Your task to perform on an android device: check the backup settings in the google photos Image 0: 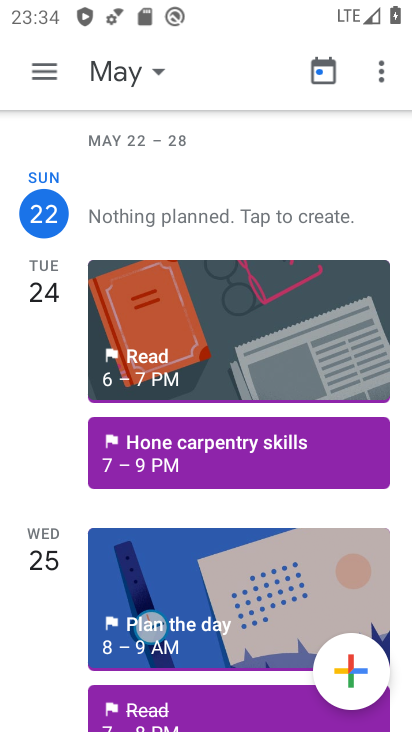
Step 0: press home button
Your task to perform on an android device: check the backup settings in the google photos Image 1: 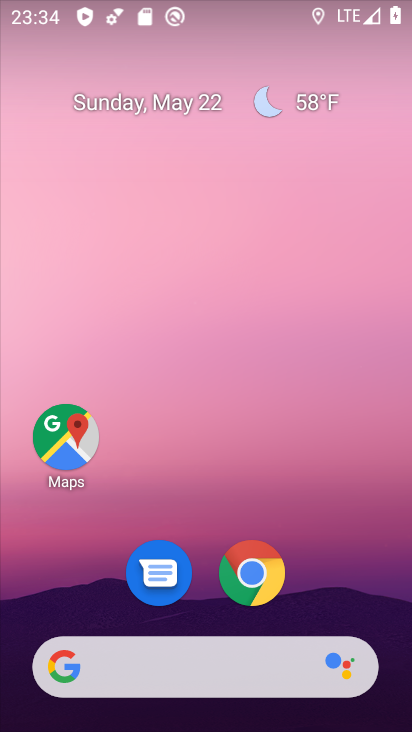
Step 1: drag from (206, 617) to (270, 8)
Your task to perform on an android device: check the backup settings in the google photos Image 2: 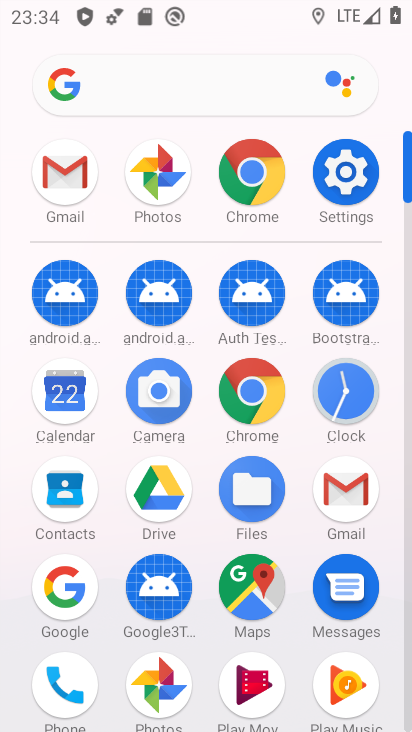
Step 2: click (160, 681)
Your task to perform on an android device: check the backup settings in the google photos Image 3: 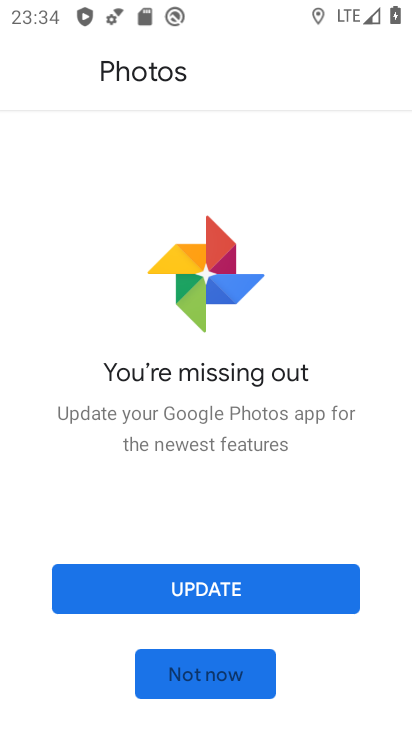
Step 3: click (203, 667)
Your task to perform on an android device: check the backup settings in the google photos Image 4: 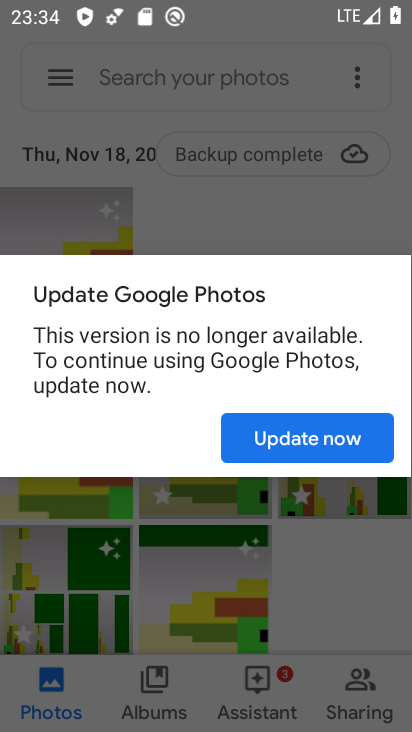
Step 4: click (338, 449)
Your task to perform on an android device: check the backup settings in the google photos Image 5: 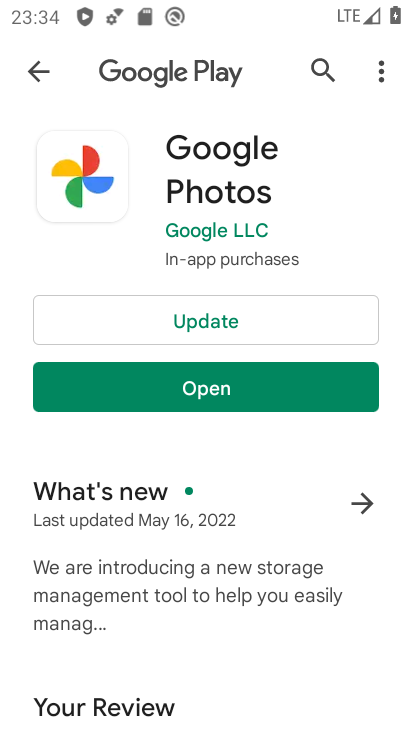
Step 5: click (218, 376)
Your task to perform on an android device: check the backup settings in the google photos Image 6: 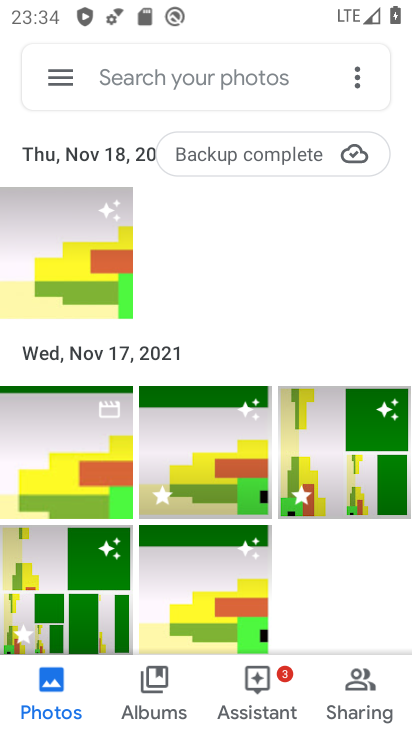
Step 6: click (60, 84)
Your task to perform on an android device: check the backup settings in the google photos Image 7: 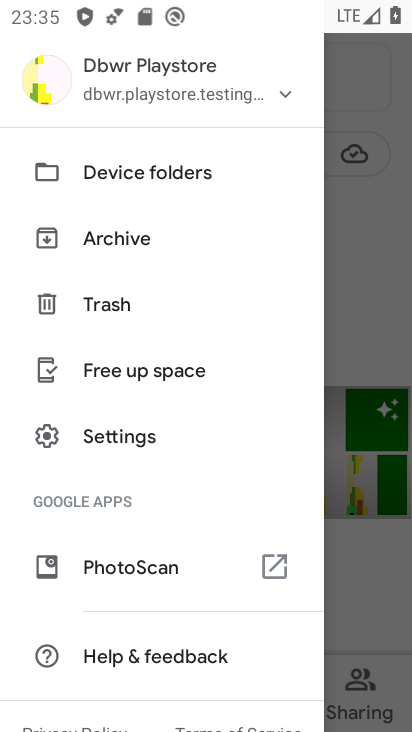
Step 7: click (127, 443)
Your task to perform on an android device: check the backup settings in the google photos Image 8: 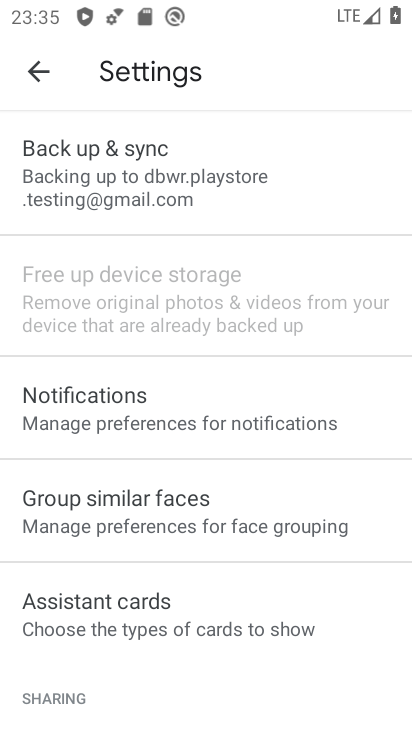
Step 8: click (135, 179)
Your task to perform on an android device: check the backup settings in the google photos Image 9: 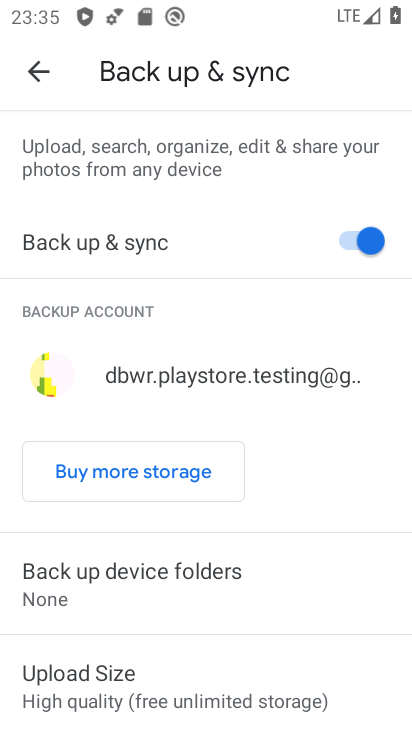
Step 9: task complete